Your task to perform on an android device: toggle show notifications on the lock screen Image 0: 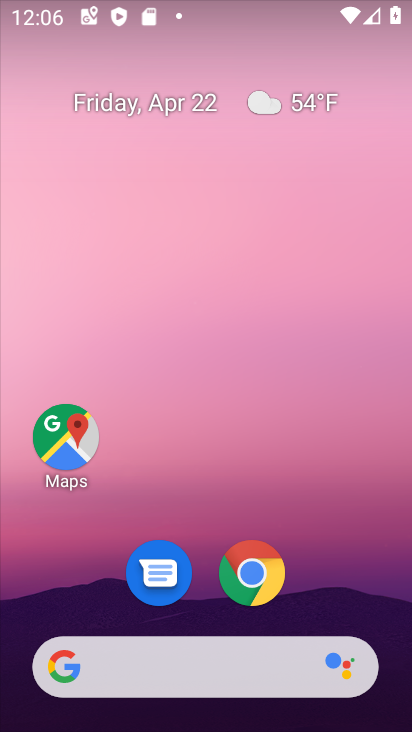
Step 0: drag from (359, 536) to (344, 153)
Your task to perform on an android device: toggle show notifications on the lock screen Image 1: 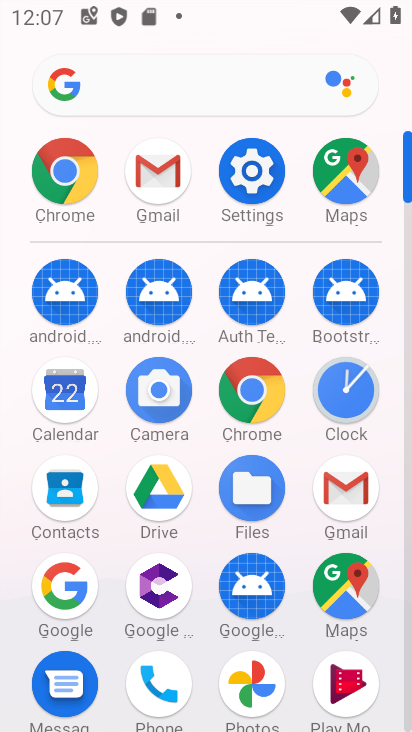
Step 1: click (247, 158)
Your task to perform on an android device: toggle show notifications on the lock screen Image 2: 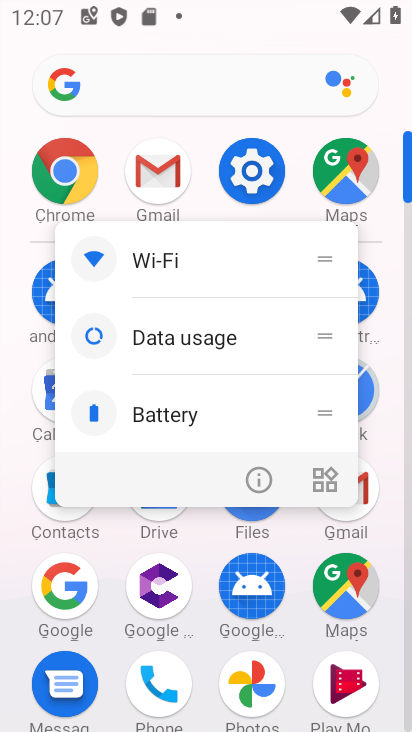
Step 2: click (249, 172)
Your task to perform on an android device: toggle show notifications on the lock screen Image 3: 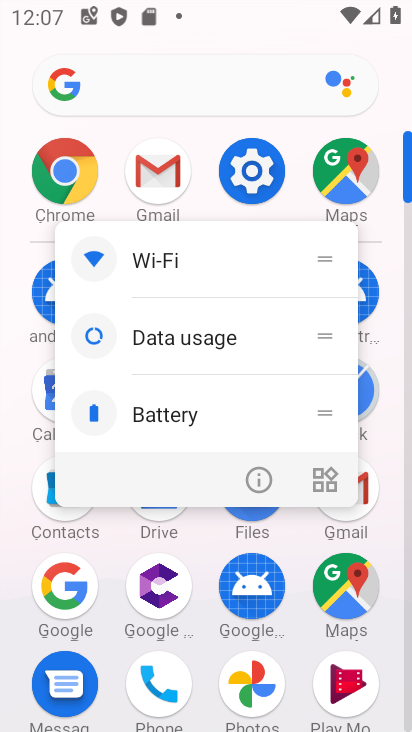
Step 3: click (253, 193)
Your task to perform on an android device: toggle show notifications on the lock screen Image 4: 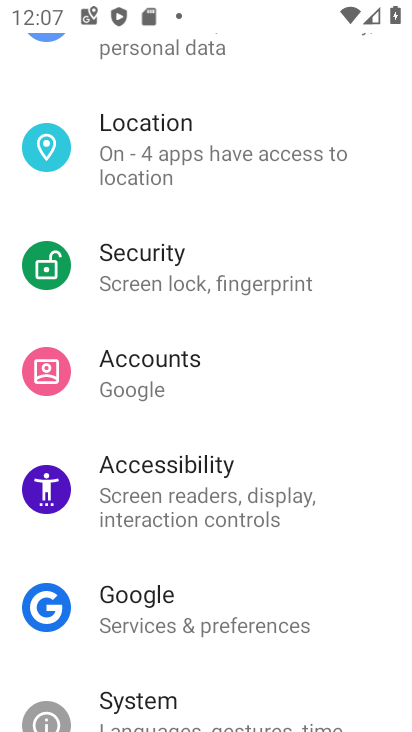
Step 4: drag from (289, 373) to (284, 128)
Your task to perform on an android device: toggle show notifications on the lock screen Image 5: 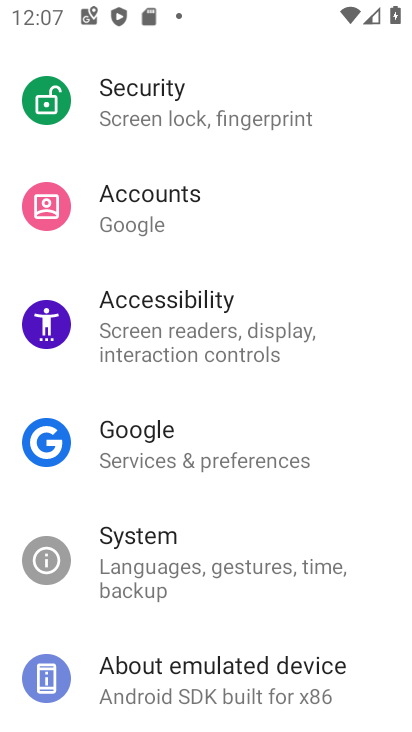
Step 5: drag from (263, 239) to (268, 521)
Your task to perform on an android device: toggle show notifications on the lock screen Image 6: 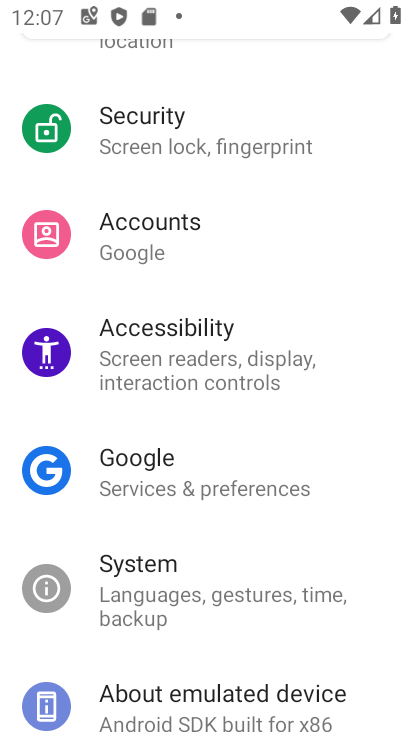
Step 6: drag from (243, 106) to (243, 514)
Your task to perform on an android device: toggle show notifications on the lock screen Image 7: 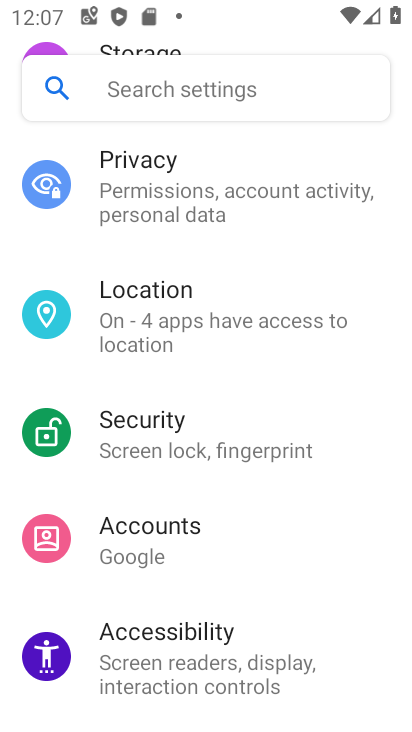
Step 7: drag from (264, 214) to (263, 586)
Your task to perform on an android device: toggle show notifications on the lock screen Image 8: 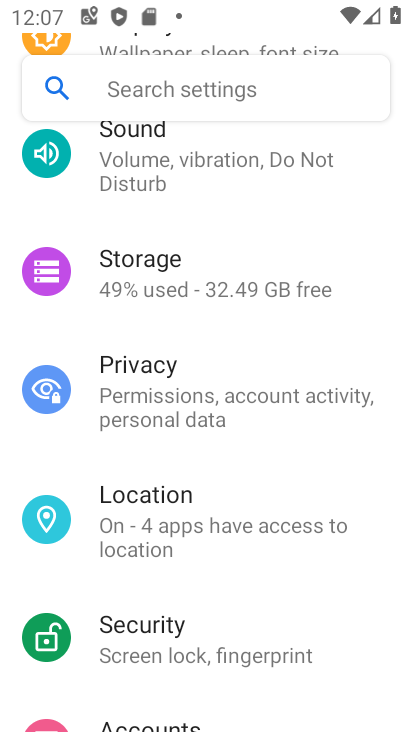
Step 8: drag from (281, 177) to (282, 529)
Your task to perform on an android device: toggle show notifications on the lock screen Image 9: 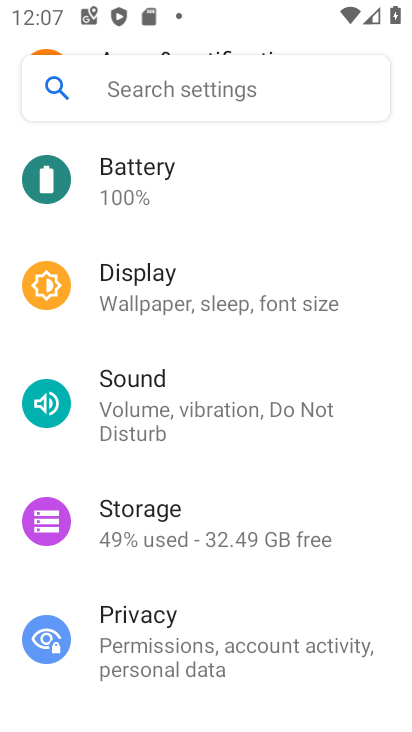
Step 9: drag from (247, 242) to (250, 530)
Your task to perform on an android device: toggle show notifications on the lock screen Image 10: 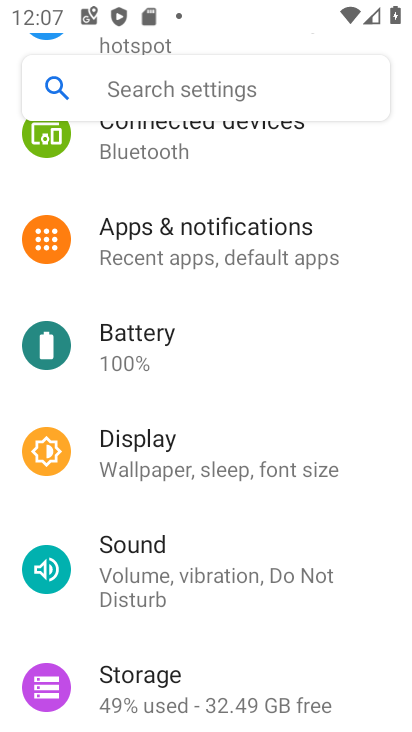
Step 10: click (228, 234)
Your task to perform on an android device: toggle show notifications on the lock screen Image 11: 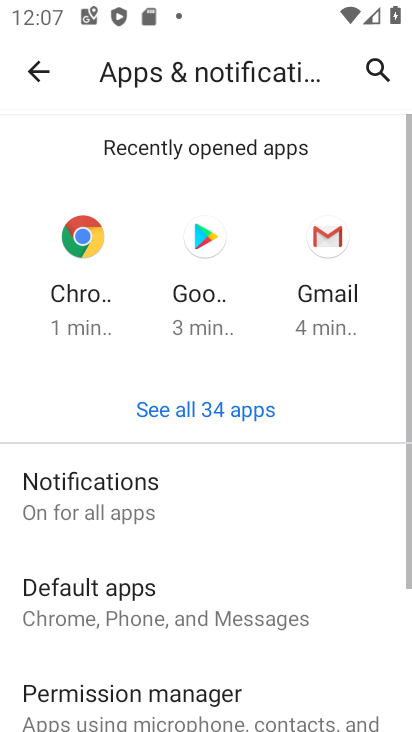
Step 11: click (76, 499)
Your task to perform on an android device: toggle show notifications on the lock screen Image 12: 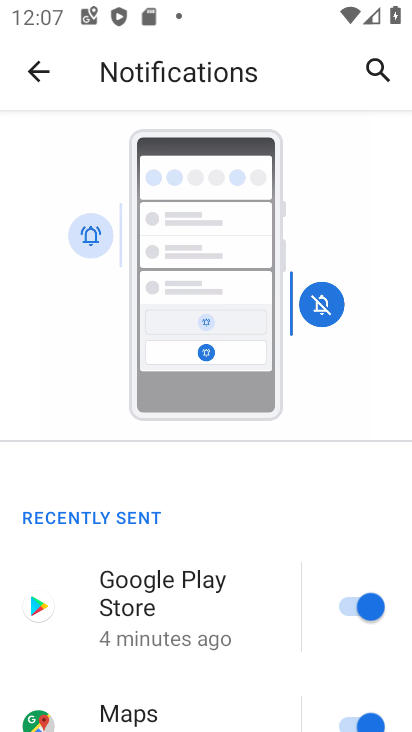
Step 12: drag from (255, 692) to (236, 281)
Your task to perform on an android device: toggle show notifications on the lock screen Image 13: 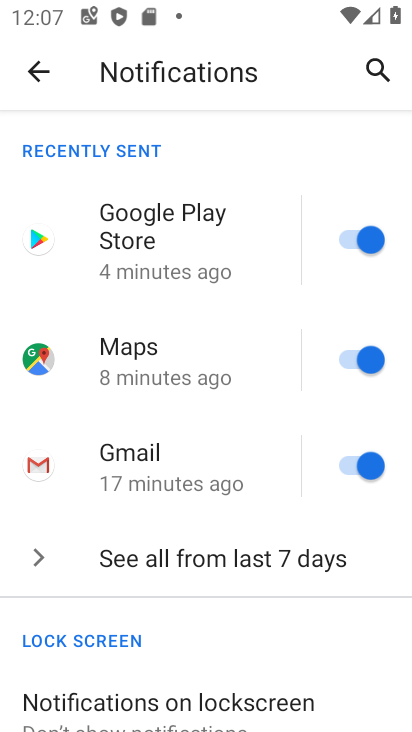
Step 13: drag from (217, 615) to (242, 242)
Your task to perform on an android device: toggle show notifications on the lock screen Image 14: 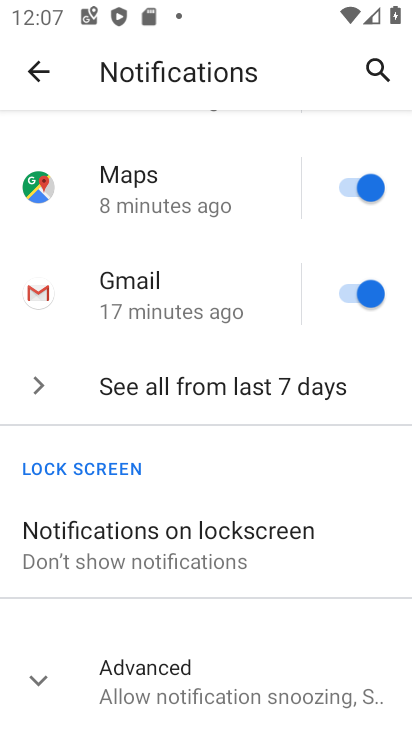
Step 14: click (107, 524)
Your task to perform on an android device: toggle show notifications on the lock screen Image 15: 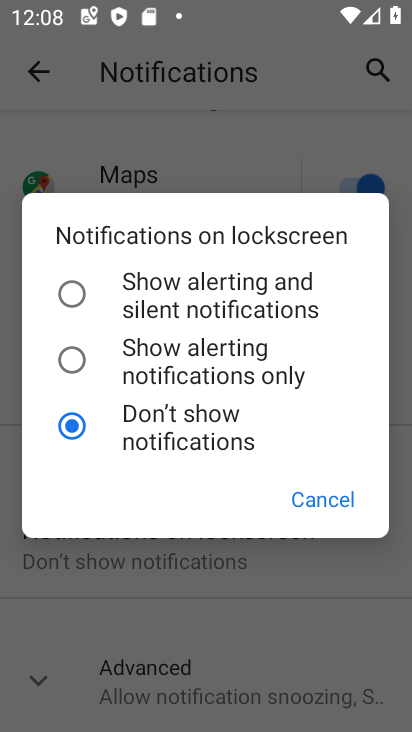
Step 15: click (55, 284)
Your task to perform on an android device: toggle show notifications on the lock screen Image 16: 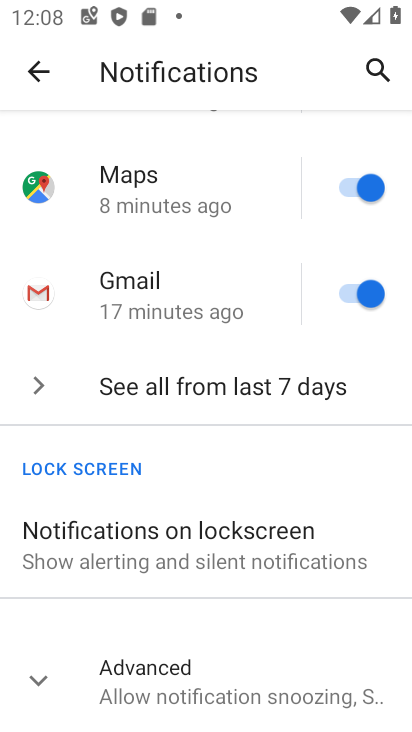
Step 16: task complete